Your task to perform on an android device: What's the weather today? Image 0: 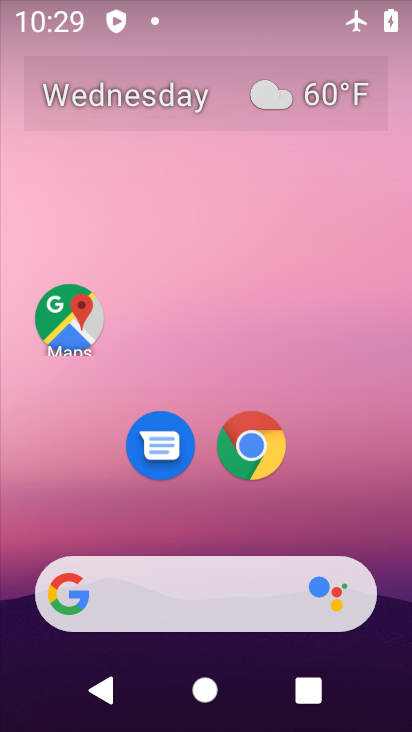
Step 0: drag from (203, 518) to (184, 172)
Your task to perform on an android device: What's the weather today? Image 1: 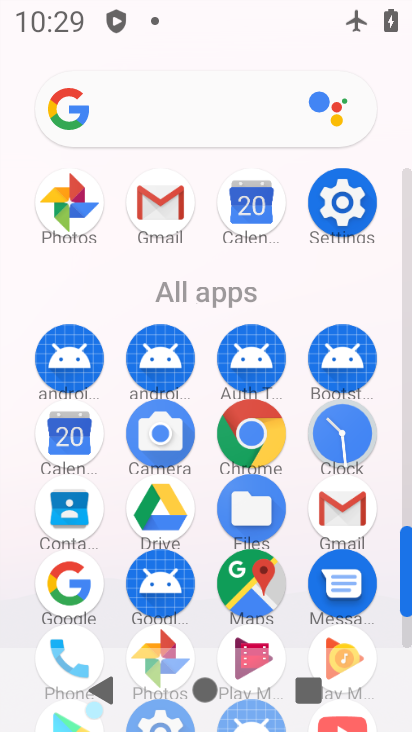
Step 1: drag from (197, 524) to (206, 290)
Your task to perform on an android device: What's the weather today? Image 2: 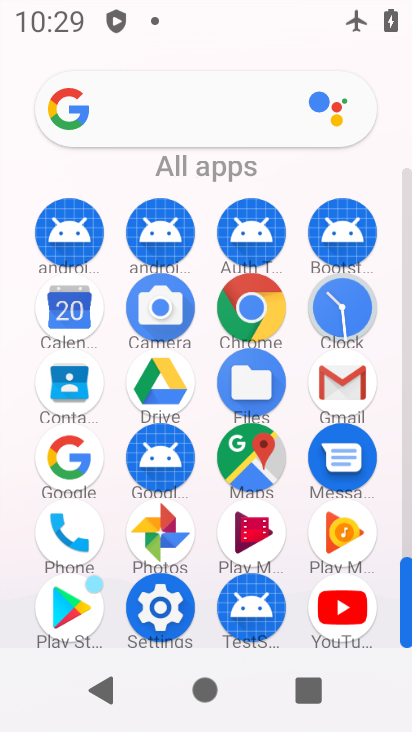
Step 2: click (61, 474)
Your task to perform on an android device: What's the weather today? Image 3: 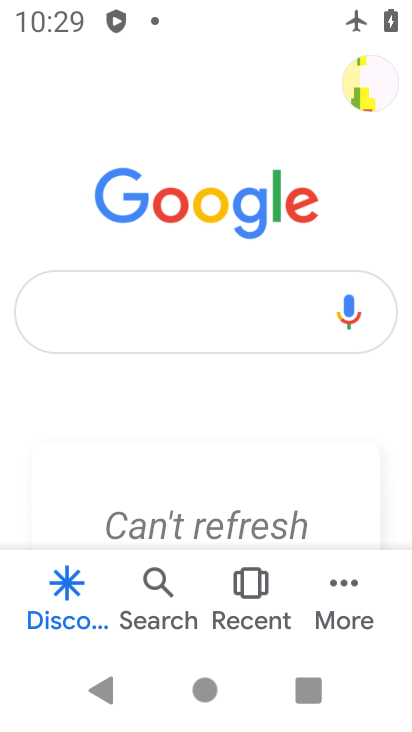
Step 3: click (168, 306)
Your task to perform on an android device: What's the weather today? Image 4: 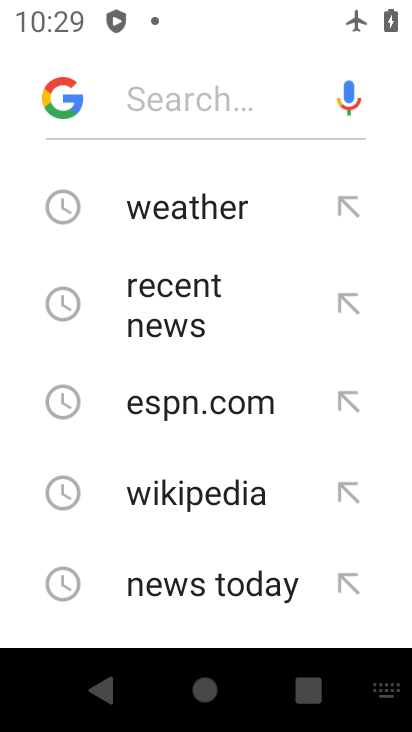
Step 4: click (182, 195)
Your task to perform on an android device: What's the weather today? Image 5: 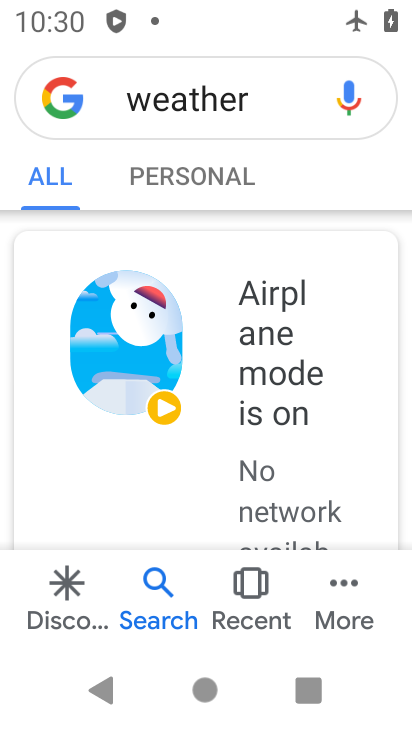
Step 5: task complete